Your task to perform on an android device: Open calendar and show me the third week of next month Image 0: 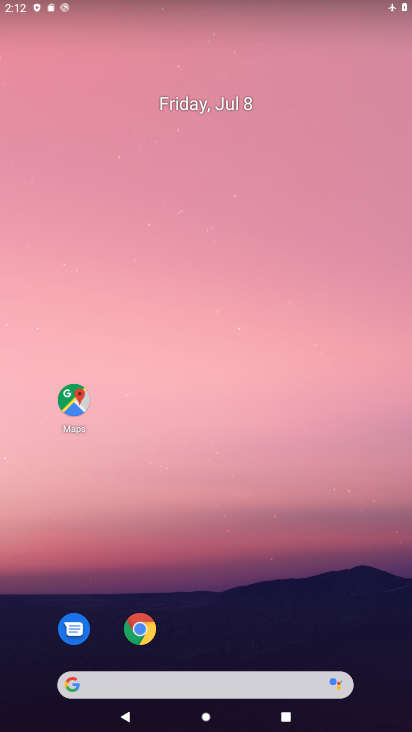
Step 0: click (47, 690)
Your task to perform on an android device: Open calendar and show me the third week of next month Image 1: 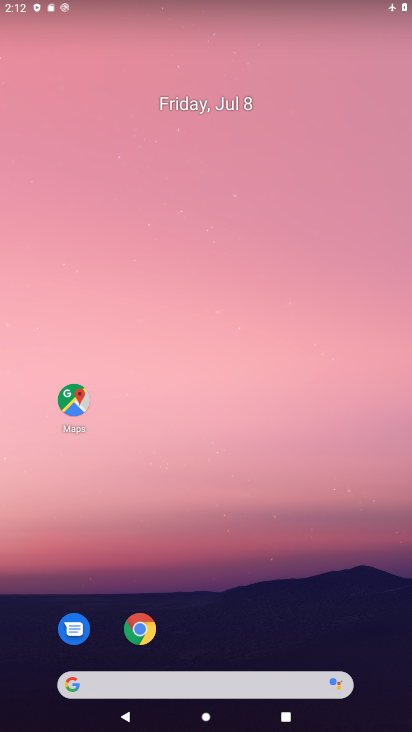
Step 1: drag from (47, 646) to (179, 254)
Your task to perform on an android device: Open calendar and show me the third week of next month Image 2: 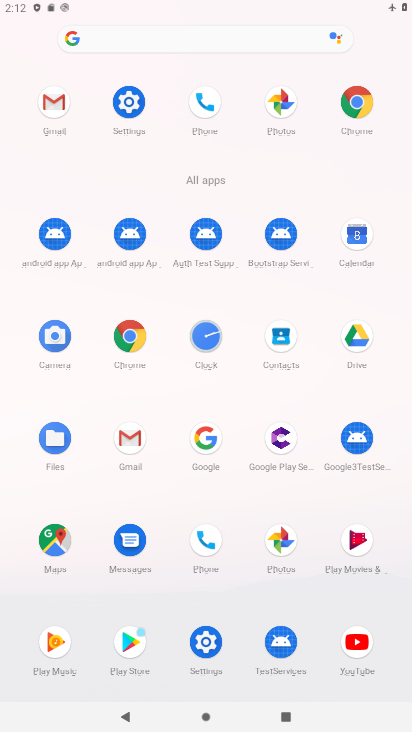
Step 2: click (353, 234)
Your task to perform on an android device: Open calendar and show me the third week of next month Image 3: 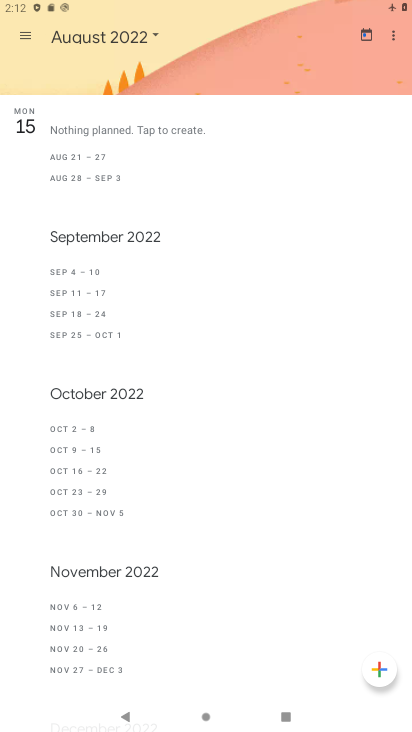
Step 3: click (21, 33)
Your task to perform on an android device: Open calendar and show me the third week of next month Image 4: 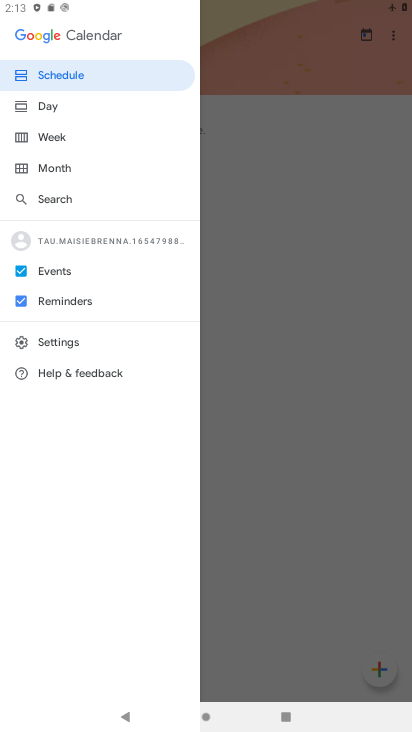
Step 4: click (75, 171)
Your task to perform on an android device: Open calendar and show me the third week of next month Image 5: 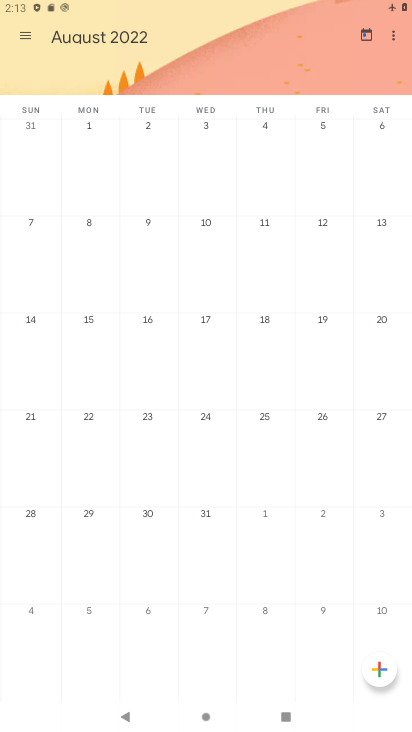
Step 5: click (95, 315)
Your task to perform on an android device: Open calendar and show me the third week of next month Image 6: 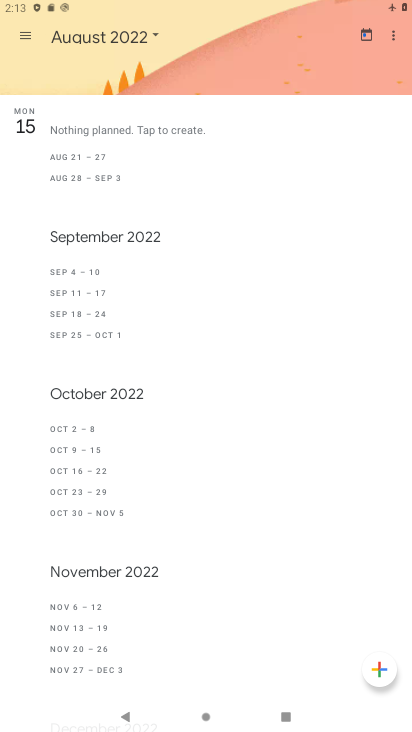
Step 6: task complete